Your task to perform on an android device: When is my next meeting? Image 0: 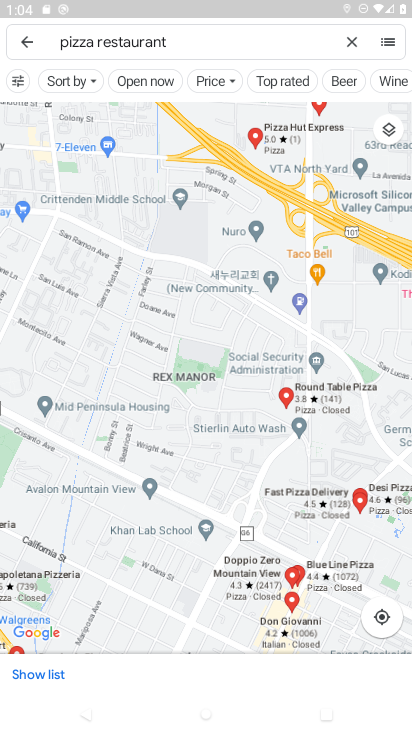
Step 0: press home button
Your task to perform on an android device: When is my next meeting? Image 1: 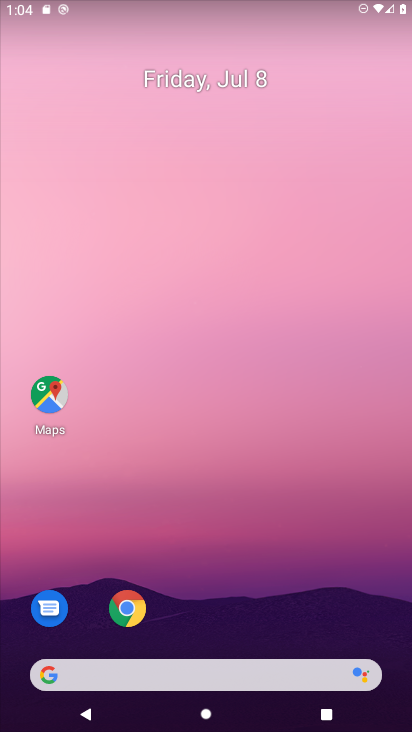
Step 1: drag from (252, 642) to (255, 96)
Your task to perform on an android device: When is my next meeting? Image 2: 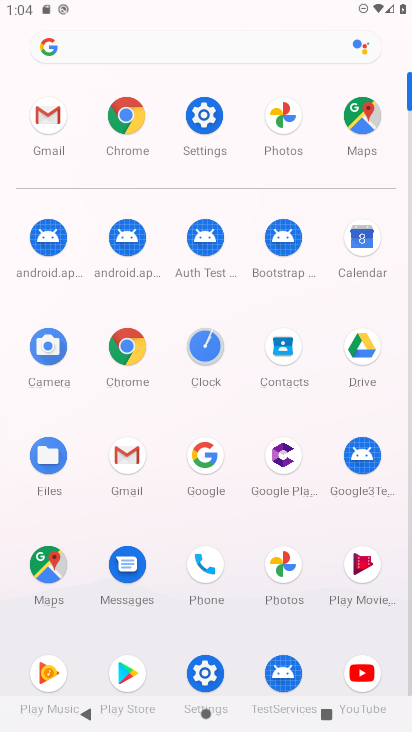
Step 2: click (364, 260)
Your task to perform on an android device: When is my next meeting? Image 3: 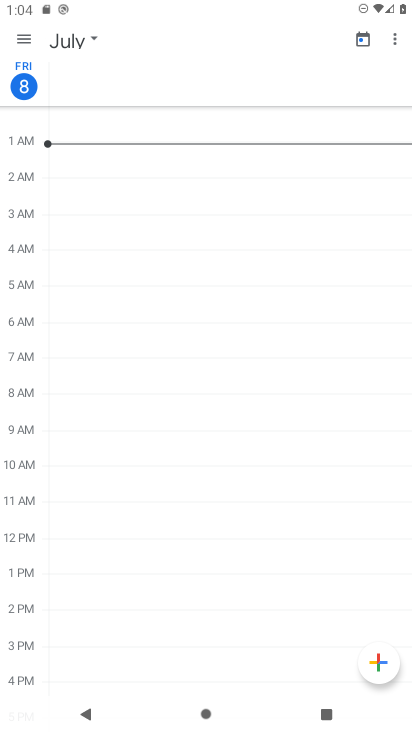
Step 3: task complete